Your task to perform on an android device: Go to Amazon Image 0: 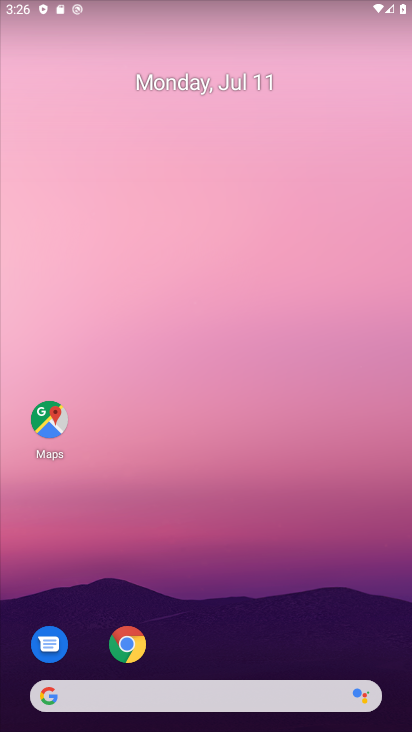
Step 0: drag from (223, 647) to (226, 258)
Your task to perform on an android device: Go to Amazon Image 1: 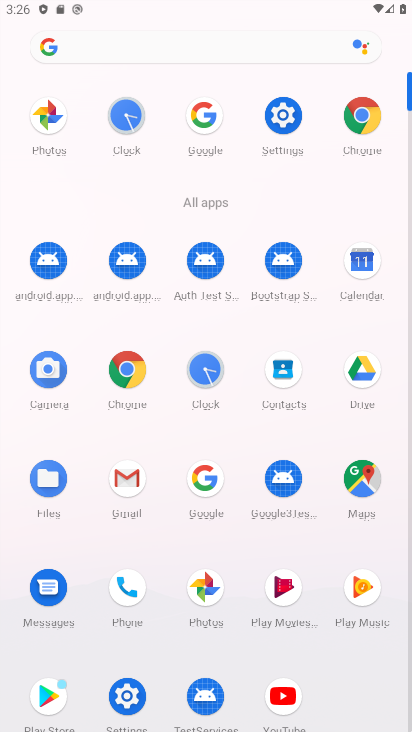
Step 1: click (358, 119)
Your task to perform on an android device: Go to Amazon Image 2: 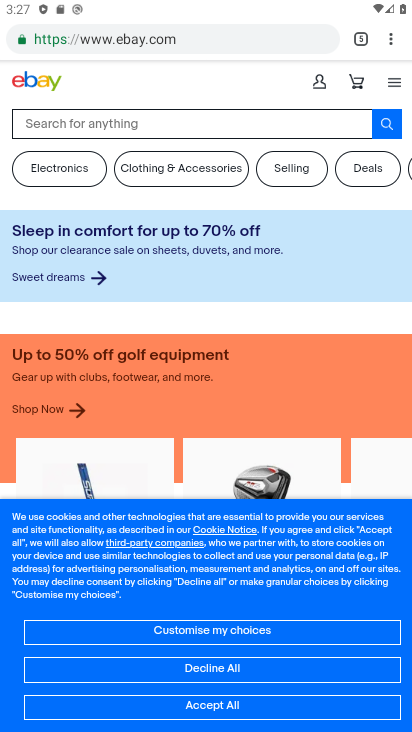
Step 2: click (386, 39)
Your task to perform on an android device: Go to Amazon Image 3: 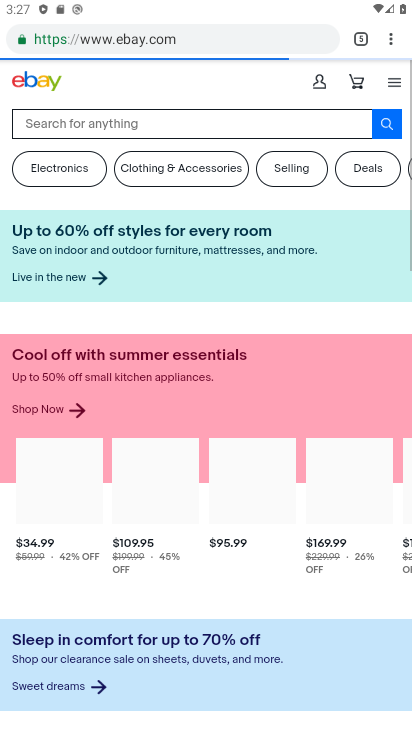
Step 3: click (400, 28)
Your task to perform on an android device: Go to Amazon Image 4: 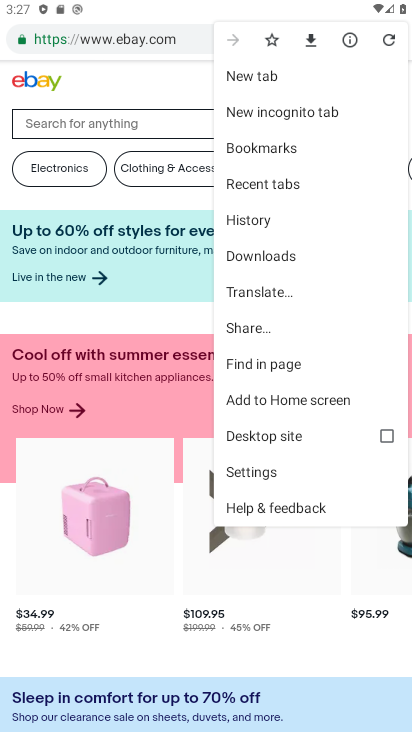
Step 4: click (276, 67)
Your task to perform on an android device: Go to Amazon Image 5: 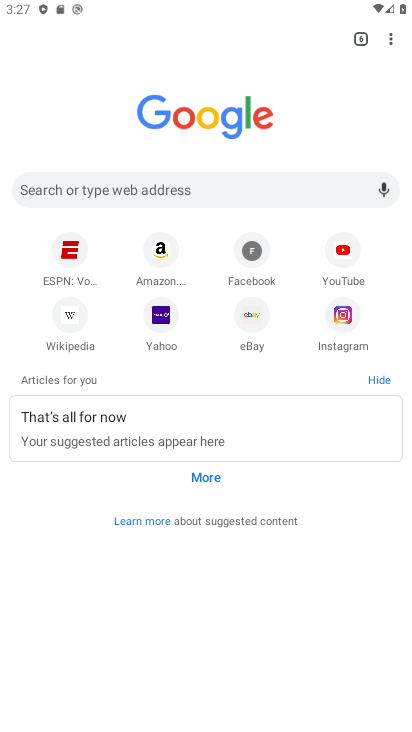
Step 5: click (165, 263)
Your task to perform on an android device: Go to Amazon Image 6: 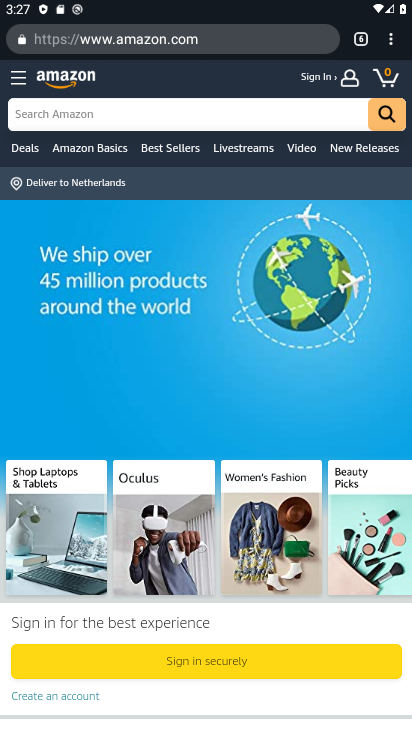
Step 6: task complete